Your task to perform on an android device: set default search engine in the chrome app Image 0: 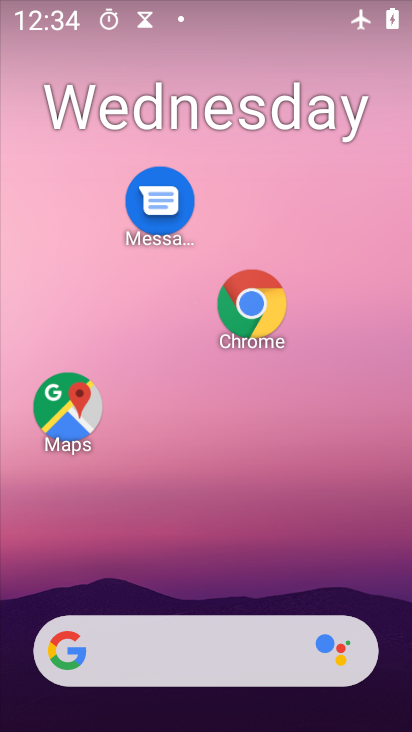
Step 0: drag from (229, 595) to (272, 235)
Your task to perform on an android device: set default search engine in the chrome app Image 1: 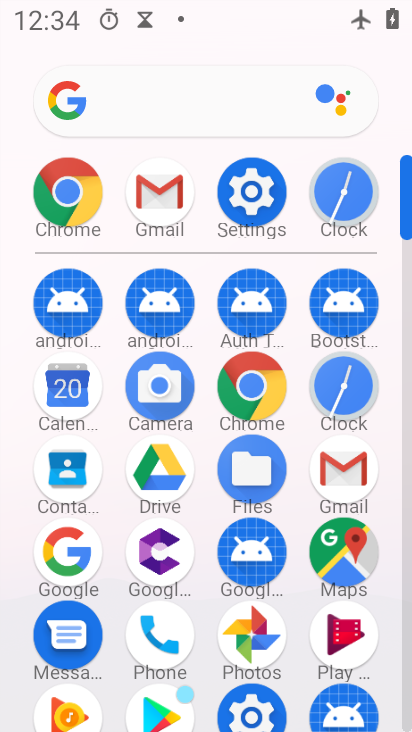
Step 1: click (63, 195)
Your task to perform on an android device: set default search engine in the chrome app Image 2: 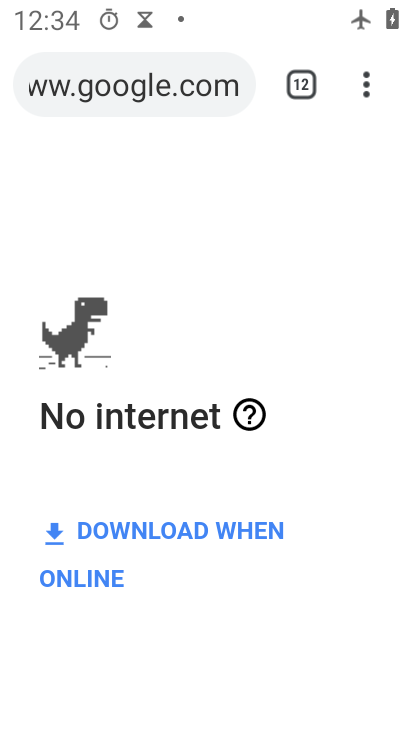
Step 2: click (195, 86)
Your task to perform on an android device: set default search engine in the chrome app Image 3: 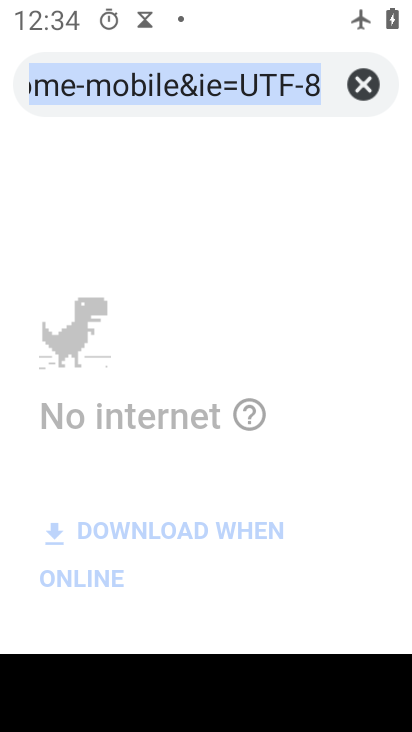
Step 3: click (357, 84)
Your task to perform on an android device: set default search engine in the chrome app Image 4: 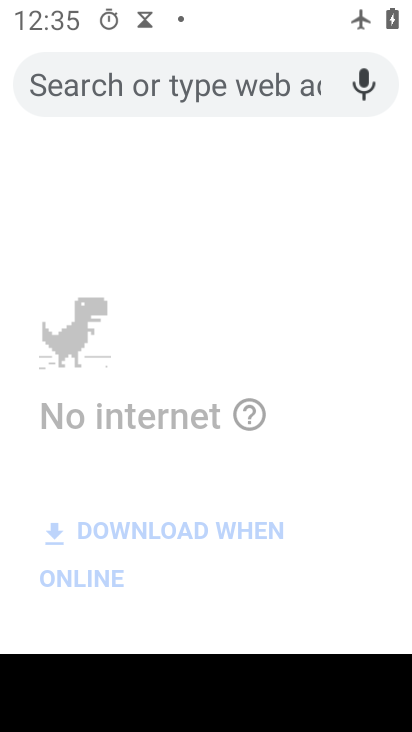
Step 4: click (164, 73)
Your task to perform on an android device: set default search engine in the chrome app Image 5: 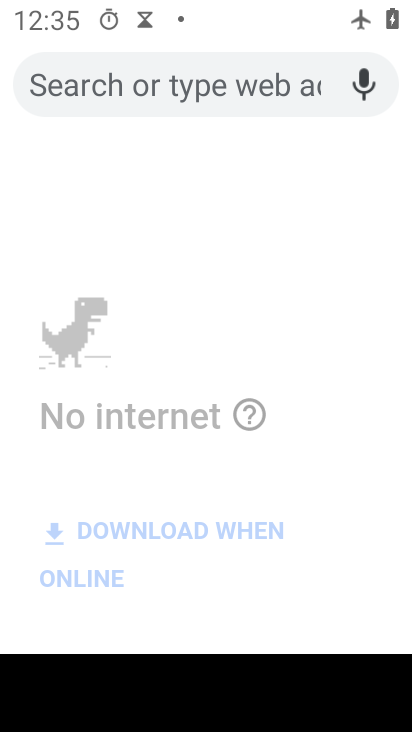
Step 5: type "set default search engine in the chrome app"
Your task to perform on an android device: set default search engine in the chrome app Image 6: 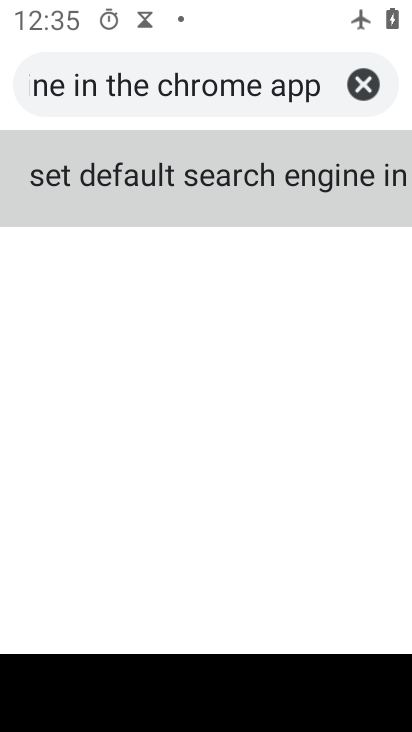
Step 6: click (93, 168)
Your task to perform on an android device: set default search engine in the chrome app Image 7: 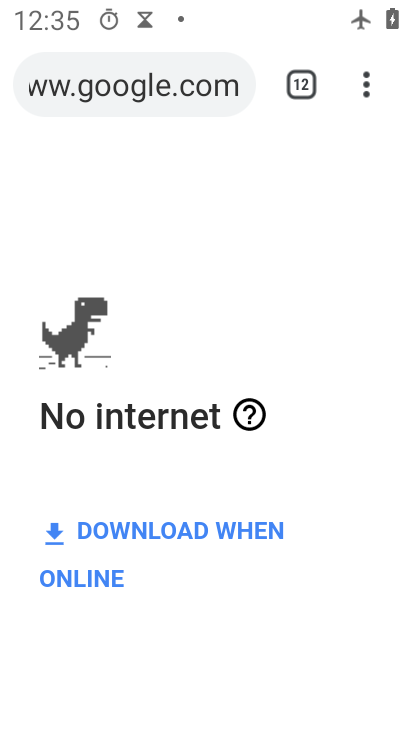
Step 7: task complete